Your task to perform on an android device: turn on location history Image 0: 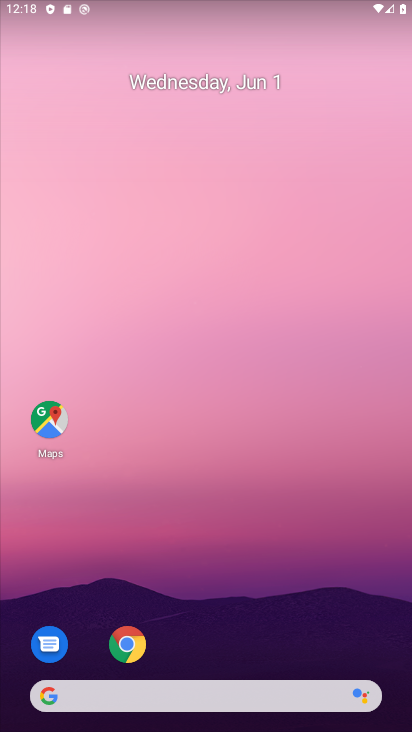
Step 0: press home button
Your task to perform on an android device: turn on location history Image 1: 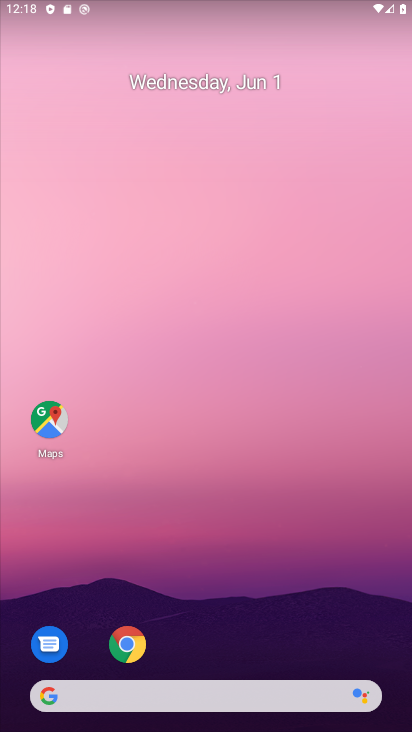
Step 1: drag from (294, 611) to (325, 5)
Your task to perform on an android device: turn on location history Image 2: 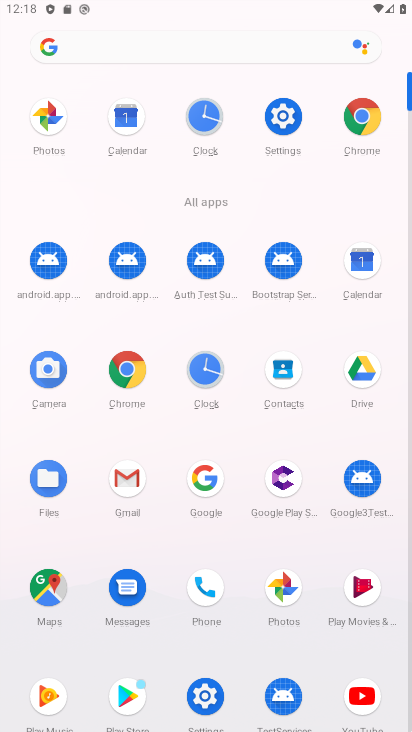
Step 2: click (50, 583)
Your task to perform on an android device: turn on location history Image 3: 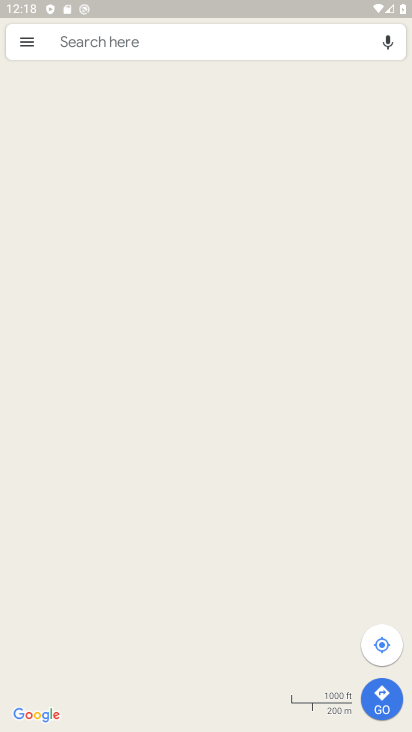
Step 3: click (26, 39)
Your task to perform on an android device: turn on location history Image 4: 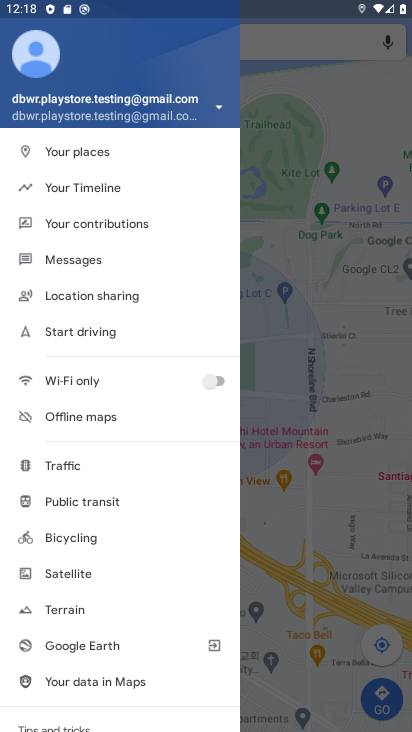
Step 4: click (83, 190)
Your task to perform on an android device: turn on location history Image 5: 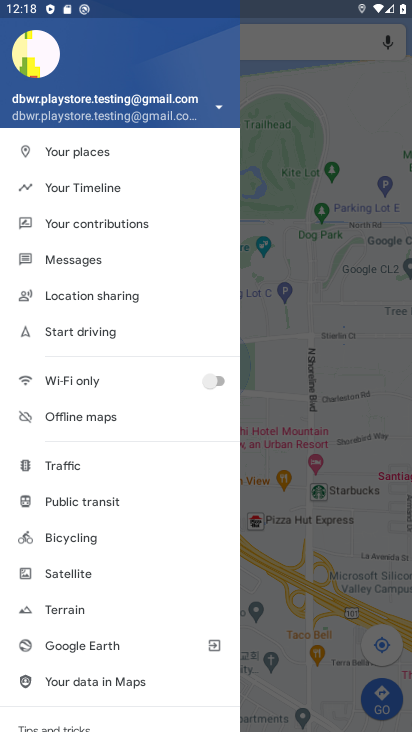
Step 5: click (83, 190)
Your task to perform on an android device: turn on location history Image 6: 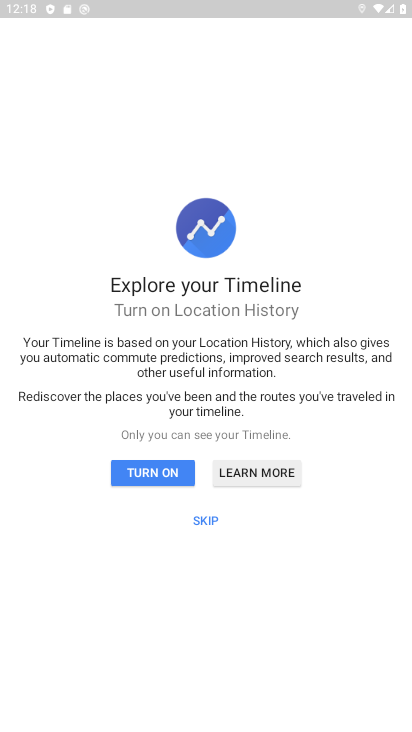
Step 6: click (169, 472)
Your task to perform on an android device: turn on location history Image 7: 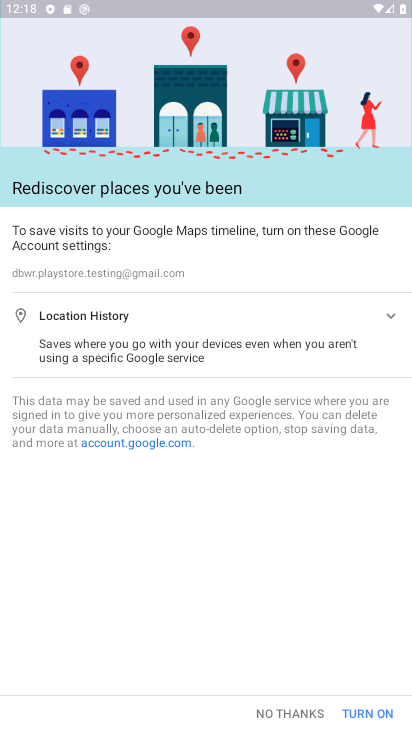
Step 7: click (361, 706)
Your task to perform on an android device: turn on location history Image 8: 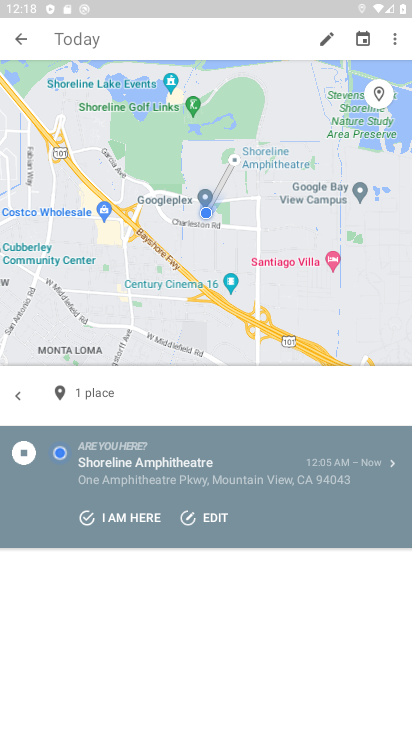
Step 8: task complete